Your task to perform on an android device: toggle wifi Image 0: 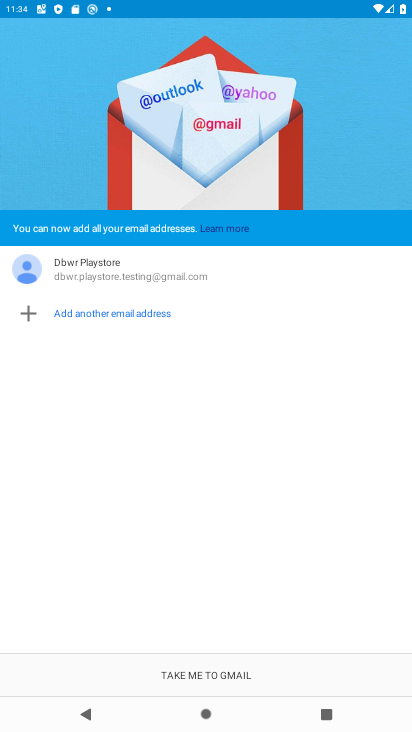
Step 0: press home button
Your task to perform on an android device: toggle wifi Image 1: 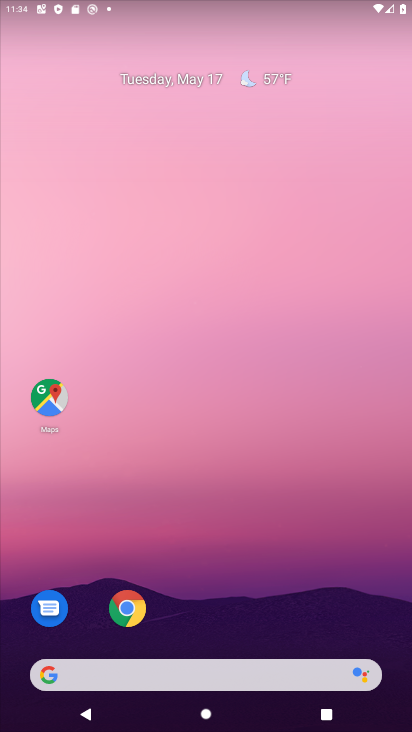
Step 1: drag from (232, 494) to (150, 0)
Your task to perform on an android device: toggle wifi Image 2: 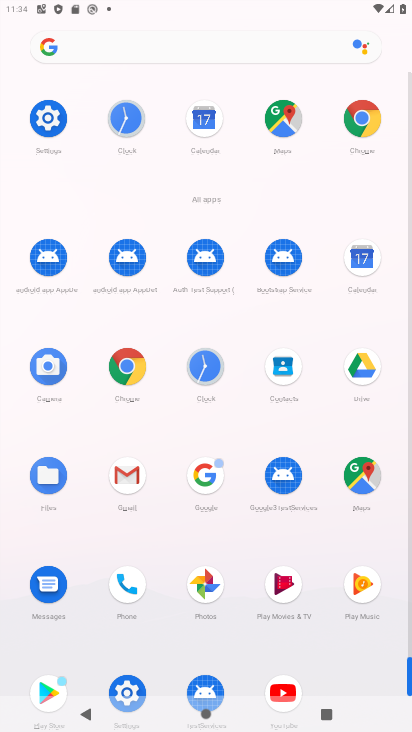
Step 2: click (45, 119)
Your task to perform on an android device: toggle wifi Image 3: 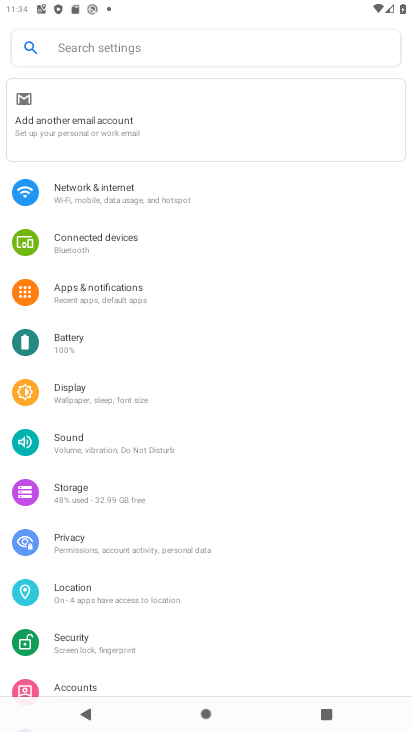
Step 3: click (107, 185)
Your task to perform on an android device: toggle wifi Image 4: 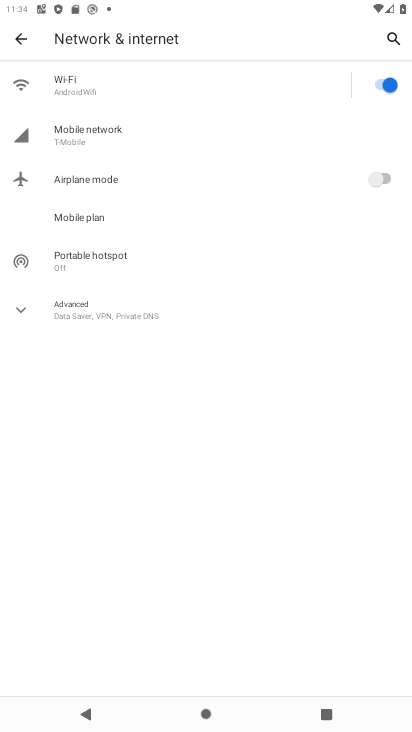
Step 4: click (392, 86)
Your task to perform on an android device: toggle wifi Image 5: 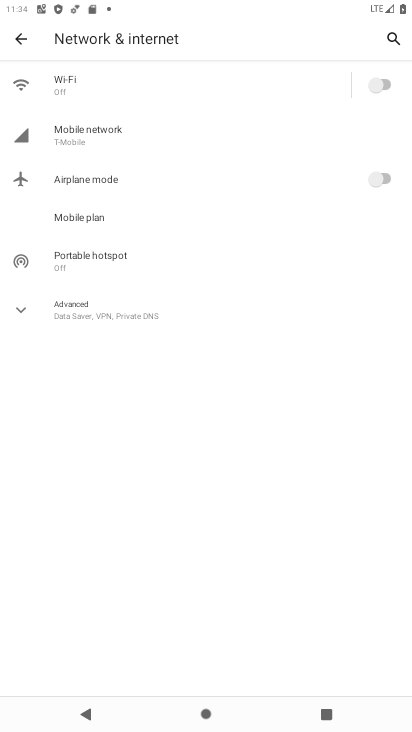
Step 5: task complete